Your task to perform on an android device: turn on wifi Image 0: 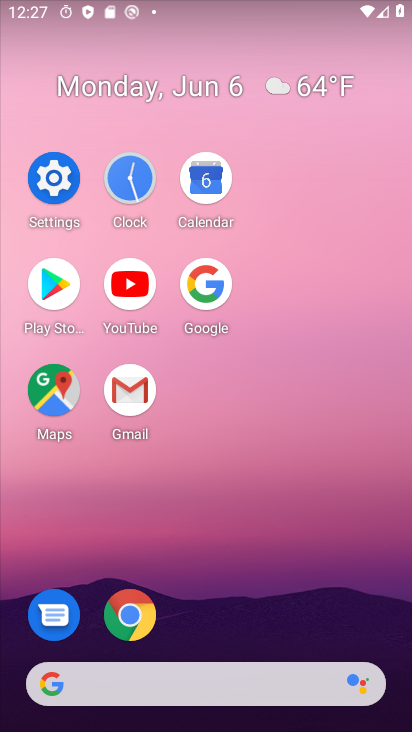
Step 0: click (45, 181)
Your task to perform on an android device: turn on wifi Image 1: 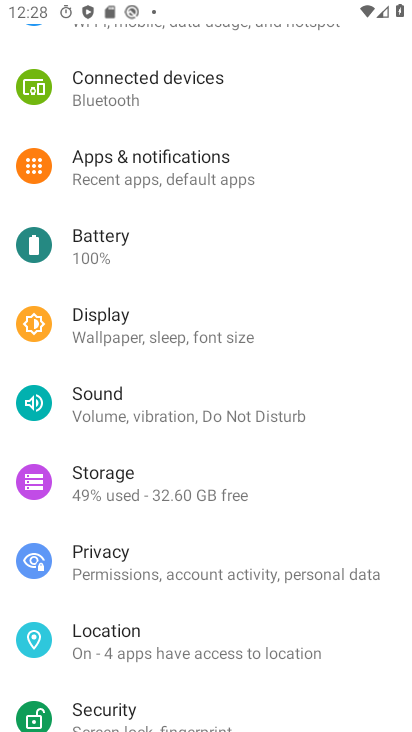
Step 1: drag from (331, 125) to (343, 469)
Your task to perform on an android device: turn on wifi Image 2: 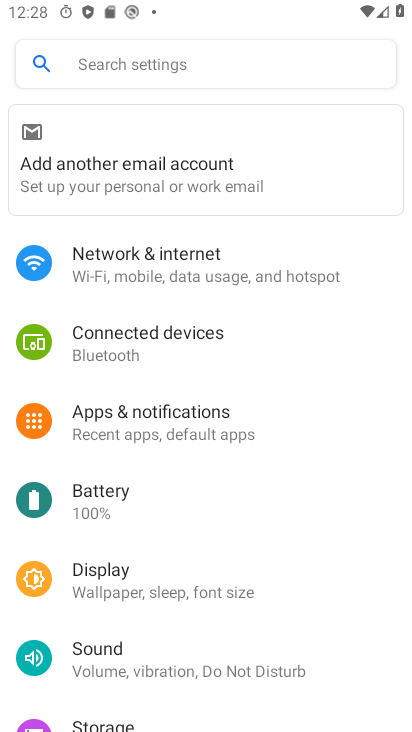
Step 2: click (286, 255)
Your task to perform on an android device: turn on wifi Image 3: 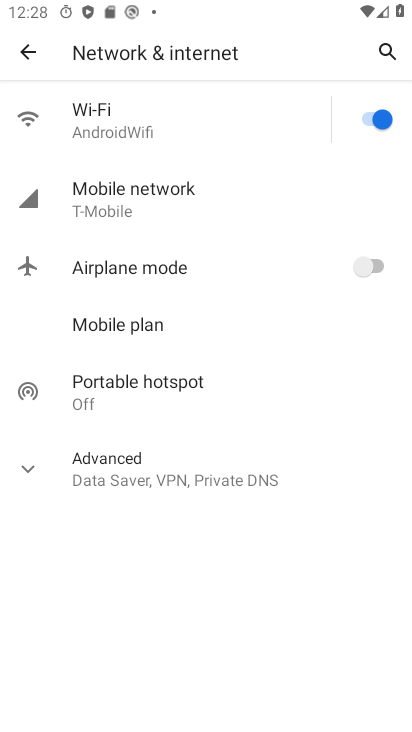
Step 3: task complete